Your task to perform on an android device: toggle translation in the chrome app Image 0: 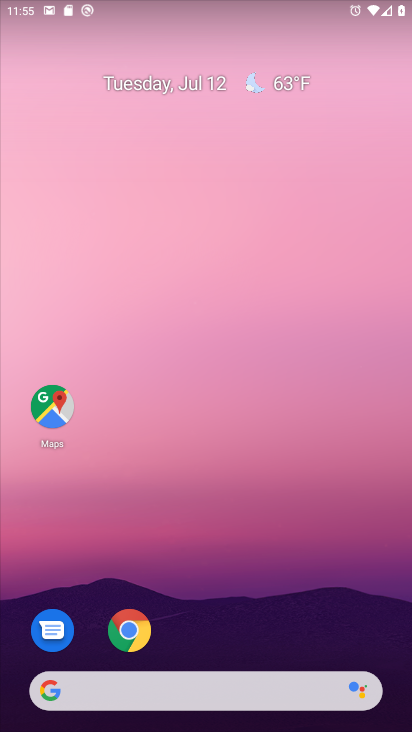
Step 0: drag from (217, 679) to (177, 441)
Your task to perform on an android device: toggle translation in the chrome app Image 1: 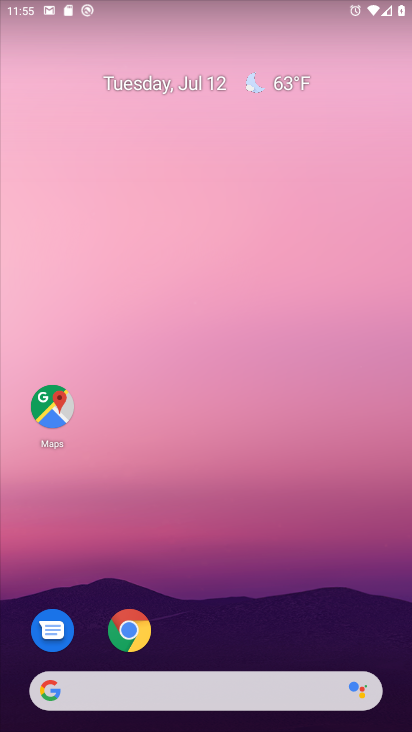
Step 1: click (145, 630)
Your task to perform on an android device: toggle translation in the chrome app Image 2: 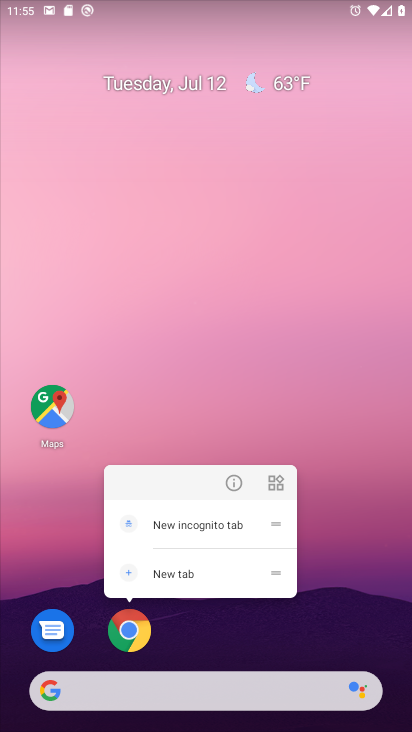
Step 2: click (130, 640)
Your task to perform on an android device: toggle translation in the chrome app Image 3: 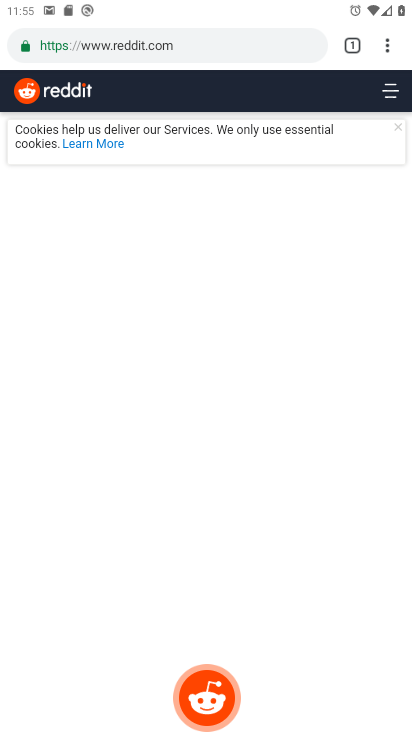
Step 3: drag from (382, 45) to (252, 539)
Your task to perform on an android device: toggle translation in the chrome app Image 4: 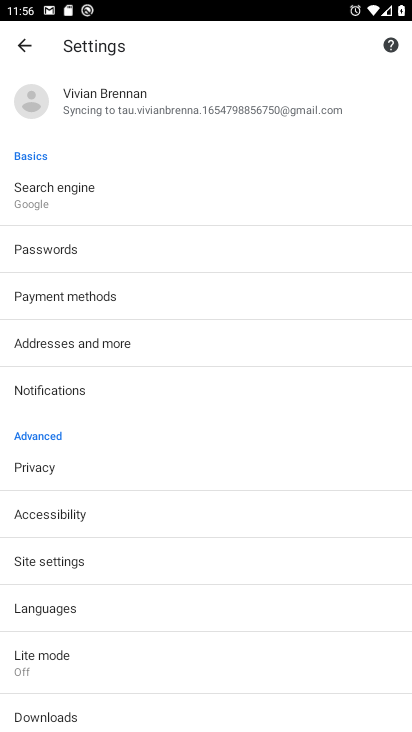
Step 4: click (74, 601)
Your task to perform on an android device: toggle translation in the chrome app Image 5: 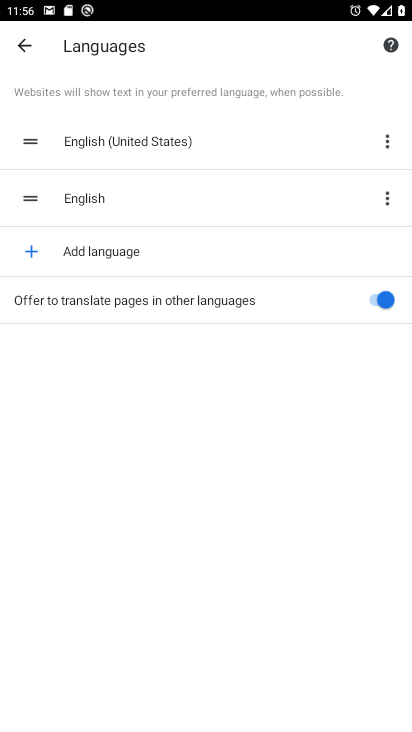
Step 5: click (388, 297)
Your task to perform on an android device: toggle translation in the chrome app Image 6: 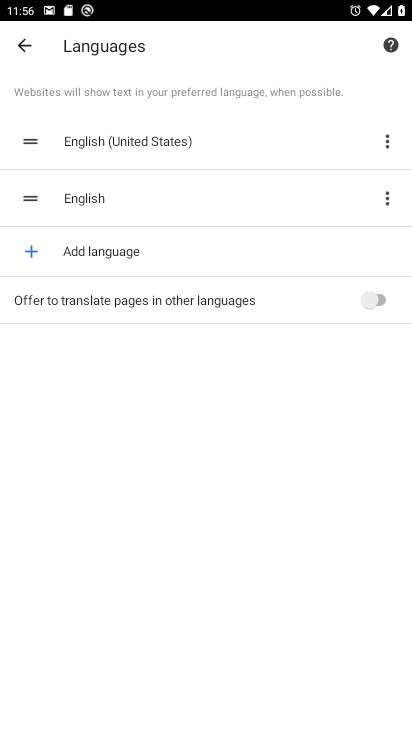
Step 6: task complete